Your task to perform on an android device: Clear all items from cart on ebay.com. Image 0: 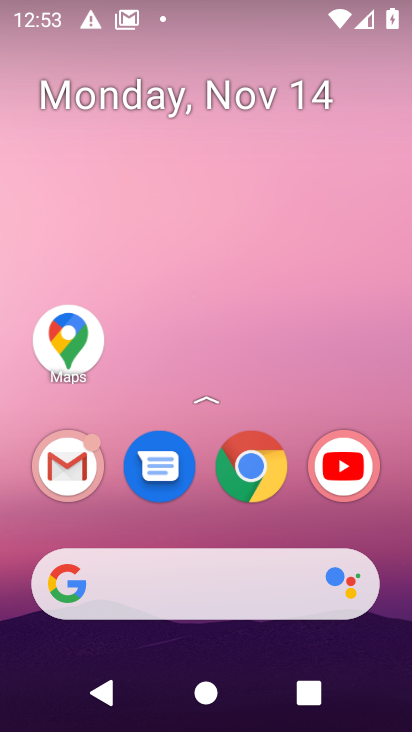
Step 0: click (250, 467)
Your task to perform on an android device: Clear all items from cart on ebay.com. Image 1: 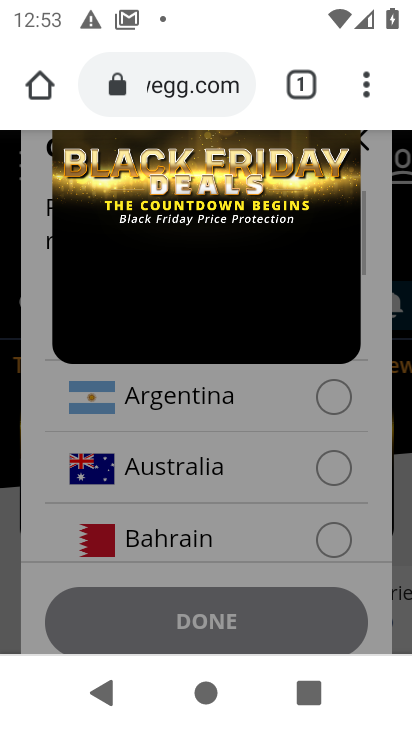
Step 1: click (193, 90)
Your task to perform on an android device: Clear all items from cart on ebay.com. Image 2: 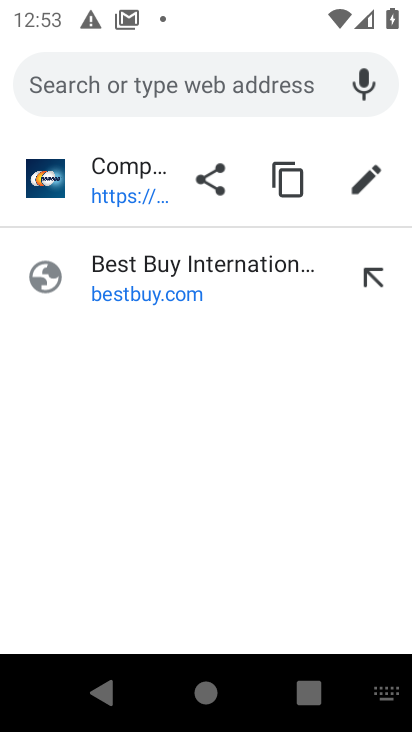
Step 2: type "ebay.com"
Your task to perform on an android device: Clear all items from cart on ebay.com. Image 3: 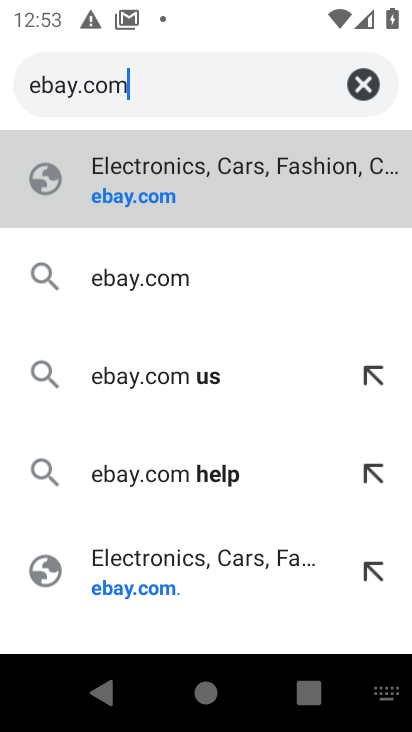
Step 3: press enter
Your task to perform on an android device: Clear all items from cart on ebay.com. Image 4: 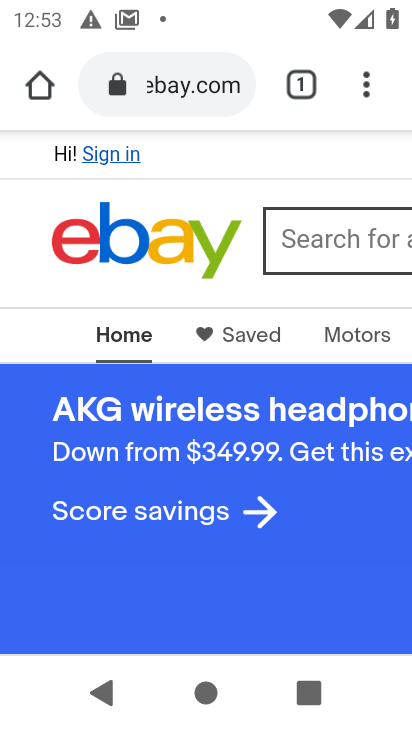
Step 4: click (312, 251)
Your task to perform on an android device: Clear all items from cart on ebay.com. Image 5: 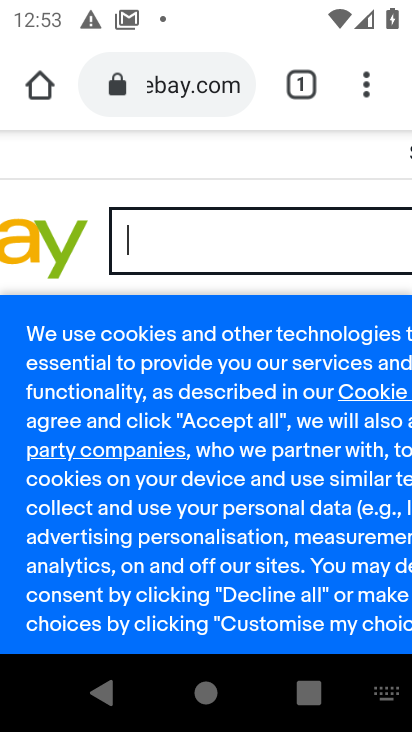
Step 5: drag from (332, 197) to (98, 312)
Your task to perform on an android device: Clear all items from cart on ebay.com. Image 6: 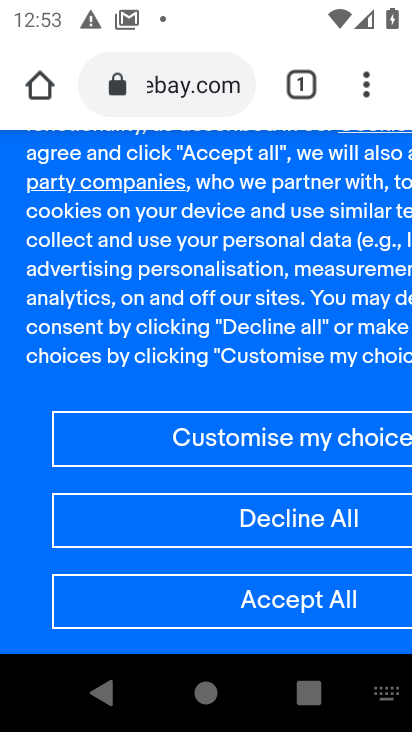
Step 6: click (315, 590)
Your task to perform on an android device: Clear all items from cart on ebay.com. Image 7: 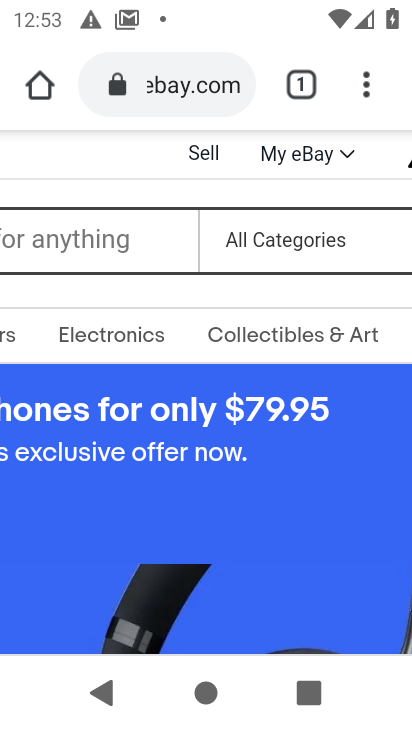
Step 7: drag from (337, 181) to (30, 373)
Your task to perform on an android device: Clear all items from cart on ebay.com. Image 8: 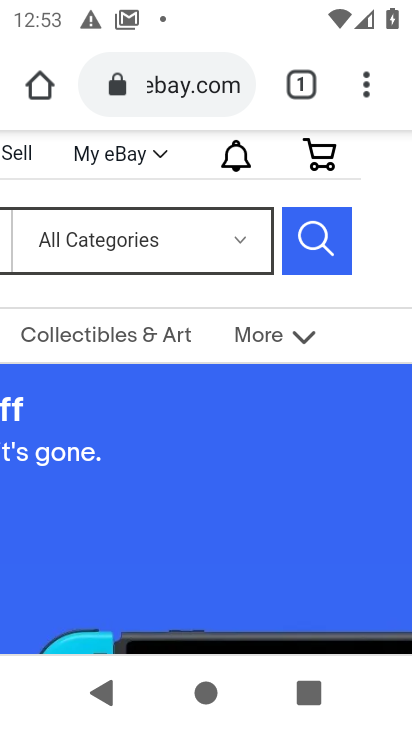
Step 8: click (334, 159)
Your task to perform on an android device: Clear all items from cart on ebay.com. Image 9: 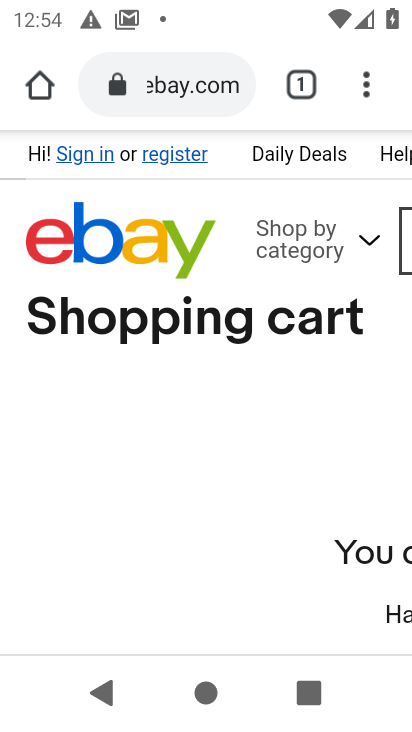
Step 9: task complete